Your task to perform on an android device: open app "ZOOM Cloud Meetings" (install if not already installed) and enter user name: "bauxite@icloud.com" and password: "dim" Image 0: 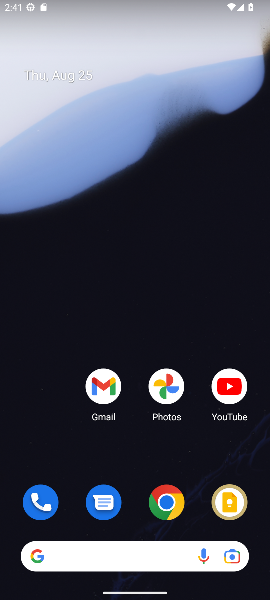
Step 0: drag from (133, 530) to (167, 48)
Your task to perform on an android device: open app "ZOOM Cloud Meetings" (install if not already installed) and enter user name: "bauxite@icloud.com" and password: "dim" Image 1: 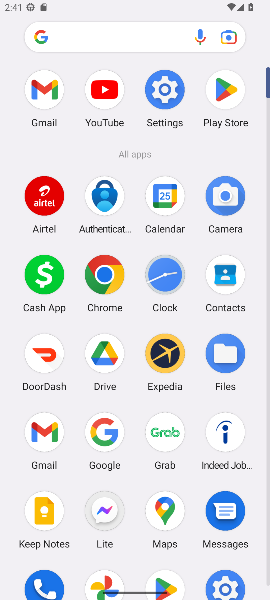
Step 1: click (229, 102)
Your task to perform on an android device: open app "ZOOM Cloud Meetings" (install if not already installed) and enter user name: "bauxite@icloud.com" and password: "dim" Image 2: 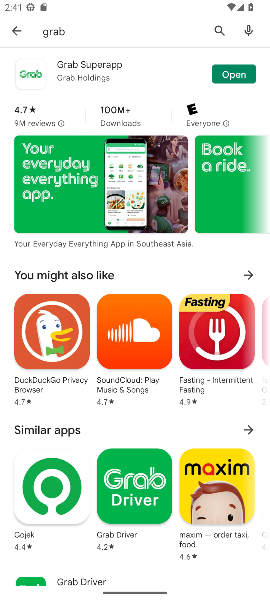
Step 2: click (214, 31)
Your task to perform on an android device: open app "ZOOM Cloud Meetings" (install if not already installed) and enter user name: "bauxite@icloud.com" and password: "dim" Image 3: 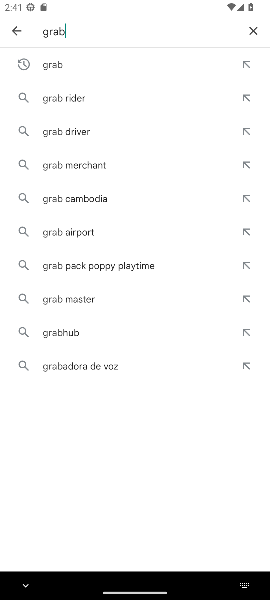
Step 3: click (252, 34)
Your task to perform on an android device: open app "ZOOM Cloud Meetings" (install if not already installed) and enter user name: "bauxite@icloud.com" and password: "dim" Image 4: 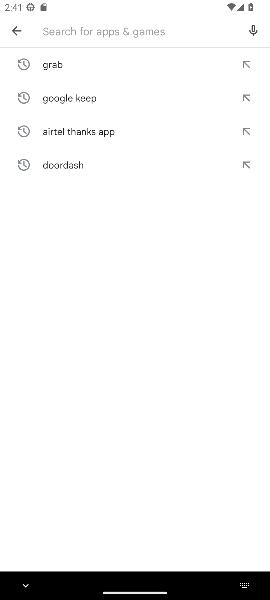
Step 4: type "zoom cloud "
Your task to perform on an android device: open app "ZOOM Cloud Meetings" (install if not already installed) and enter user name: "bauxite@icloud.com" and password: "dim" Image 5: 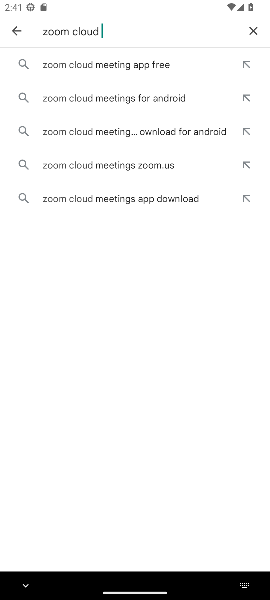
Step 5: click (109, 65)
Your task to perform on an android device: open app "ZOOM Cloud Meetings" (install if not already installed) and enter user name: "bauxite@icloud.com" and password: "dim" Image 6: 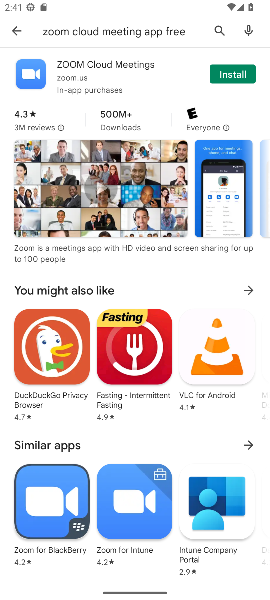
Step 6: click (211, 31)
Your task to perform on an android device: open app "ZOOM Cloud Meetings" (install if not already installed) and enter user name: "bauxite@icloud.com" and password: "dim" Image 7: 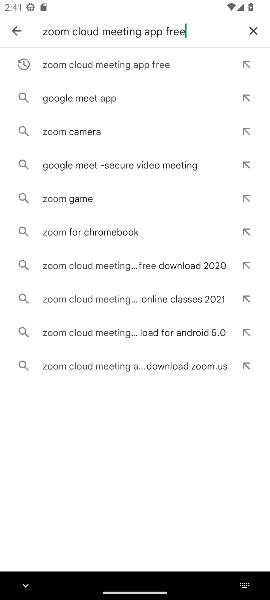
Step 7: click (249, 29)
Your task to perform on an android device: open app "ZOOM Cloud Meetings" (install if not already installed) and enter user name: "bauxite@icloud.com" and password: "dim" Image 8: 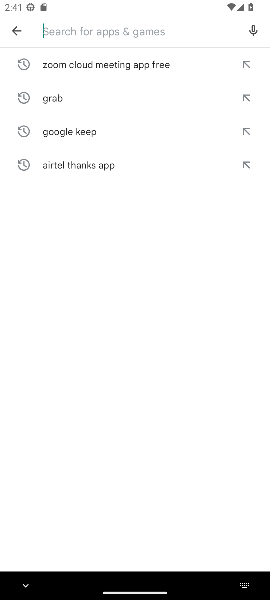
Step 8: click (19, 41)
Your task to perform on an android device: open app "ZOOM Cloud Meetings" (install if not already installed) and enter user name: "bauxite@icloud.com" and password: "dim" Image 9: 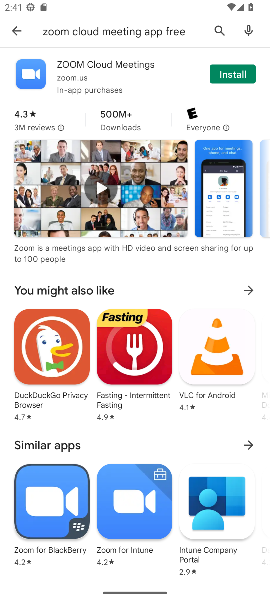
Step 9: click (220, 78)
Your task to perform on an android device: open app "ZOOM Cloud Meetings" (install if not already installed) and enter user name: "bauxite@icloud.com" and password: "dim" Image 10: 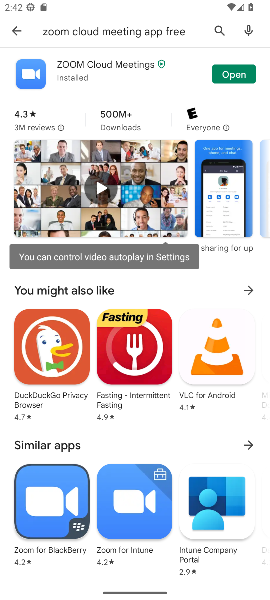
Step 10: click (232, 73)
Your task to perform on an android device: open app "ZOOM Cloud Meetings" (install if not already installed) and enter user name: "bauxite@icloud.com" and password: "dim" Image 11: 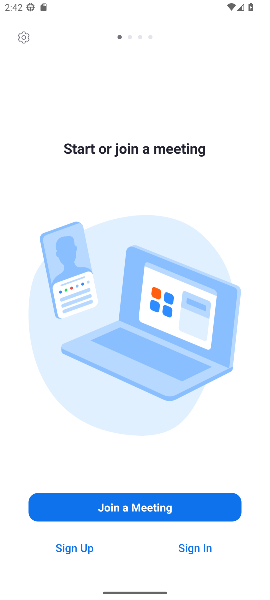
Step 11: click (191, 545)
Your task to perform on an android device: open app "ZOOM Cloud Meetings" (install if not already installed) and enter user name: "bauxite@icloud.com" and password: "dim" Image 12: 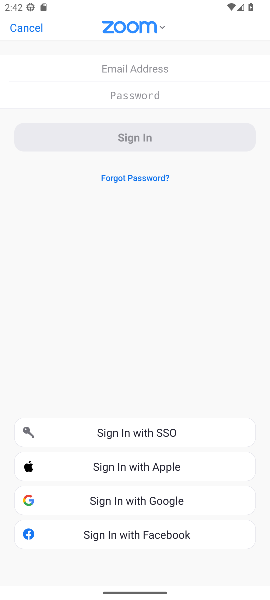
Step 12: click (132, 68)
Your task to perform on an android device: open app "ZOOM Cloud Meetings" (install if not already installed) and enter user name: "bauxite@icloud.com" and password: "dim" Image 13: 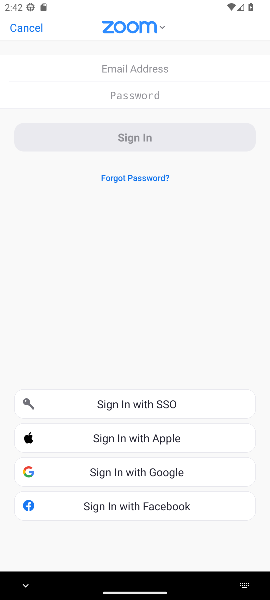
Step 13: type "bauxite@icloud.com"
Your task to perform on an android device: open app "ZOOM Cloud Meetings" (install if not already installed) and enter user name: "bauxite@icloud.com" and password: "dim" Image 14: 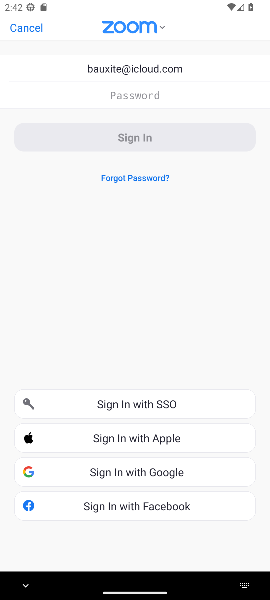
Step 14: click (115, 99)
Your task to perform on an android device: open app "ZOOM Cloud Meetings" (install if not already installed) and enter user name: "bauxite@icloud.com" and password: "dim" Image 15: 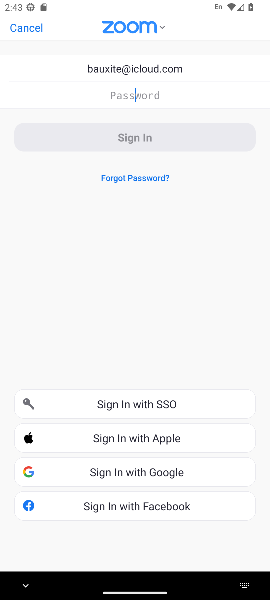
Step 15: type "dim"
Your task to perform on an android device: open app "ZOOM Cloud Meetings" (install if not already installed) and enter user name: "bauxite@icloud.com" and password: "dim" Image 16: 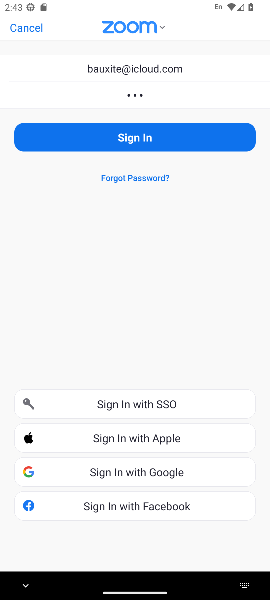
Step 16: click (174, 138)
Your task to perform on an android device: open app "ZOOM Cloud Meetings" (install if not already installed) and enter user name: "bauxite@icloud.com" and password: "dim" Image 17: 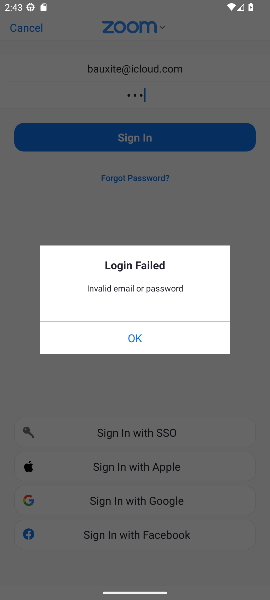
Step 17: task complete